Your task to perform on an android device: Open the phone app and click the voicemail tab. Image 0: 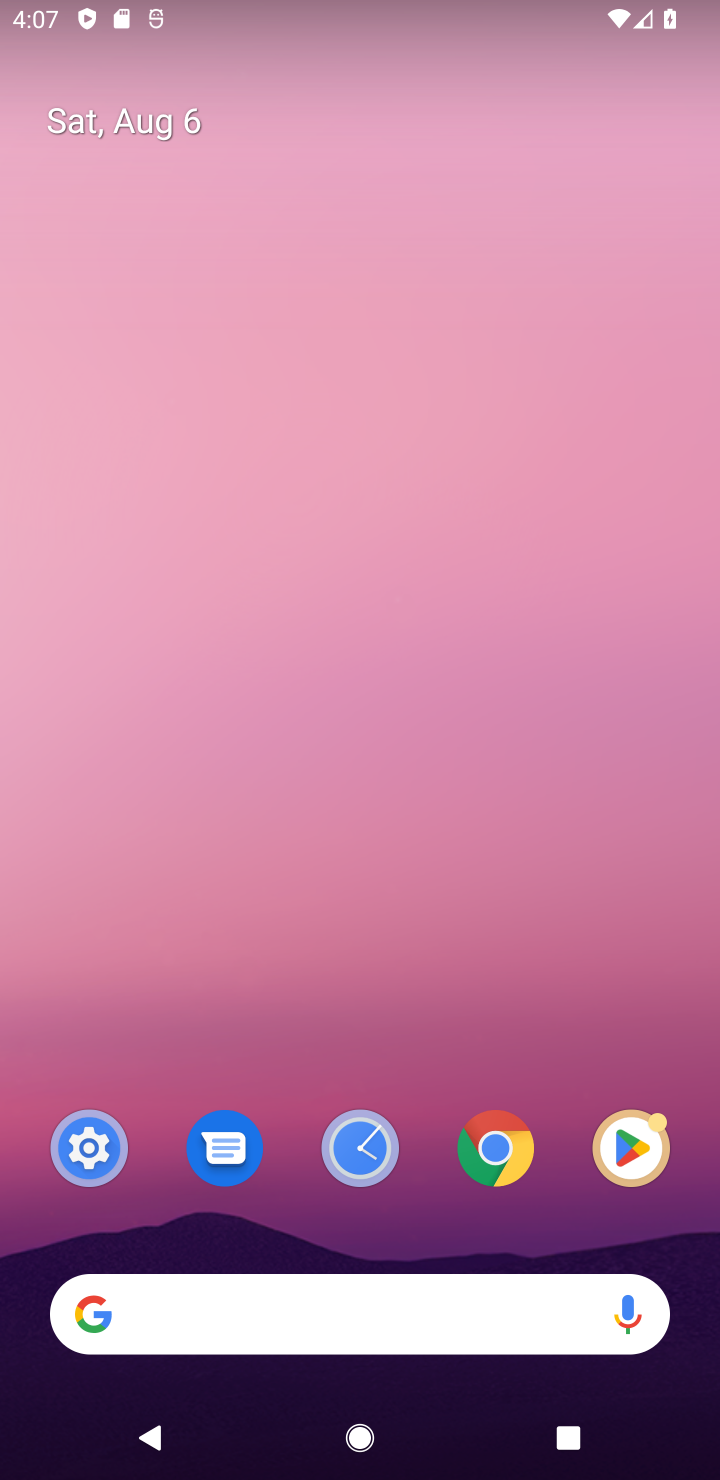
Step 0: drag from (309, 1067) to (392, 466)
Your task to perform on an android device: Open the phone app and click the voicemail tab. Image 1: 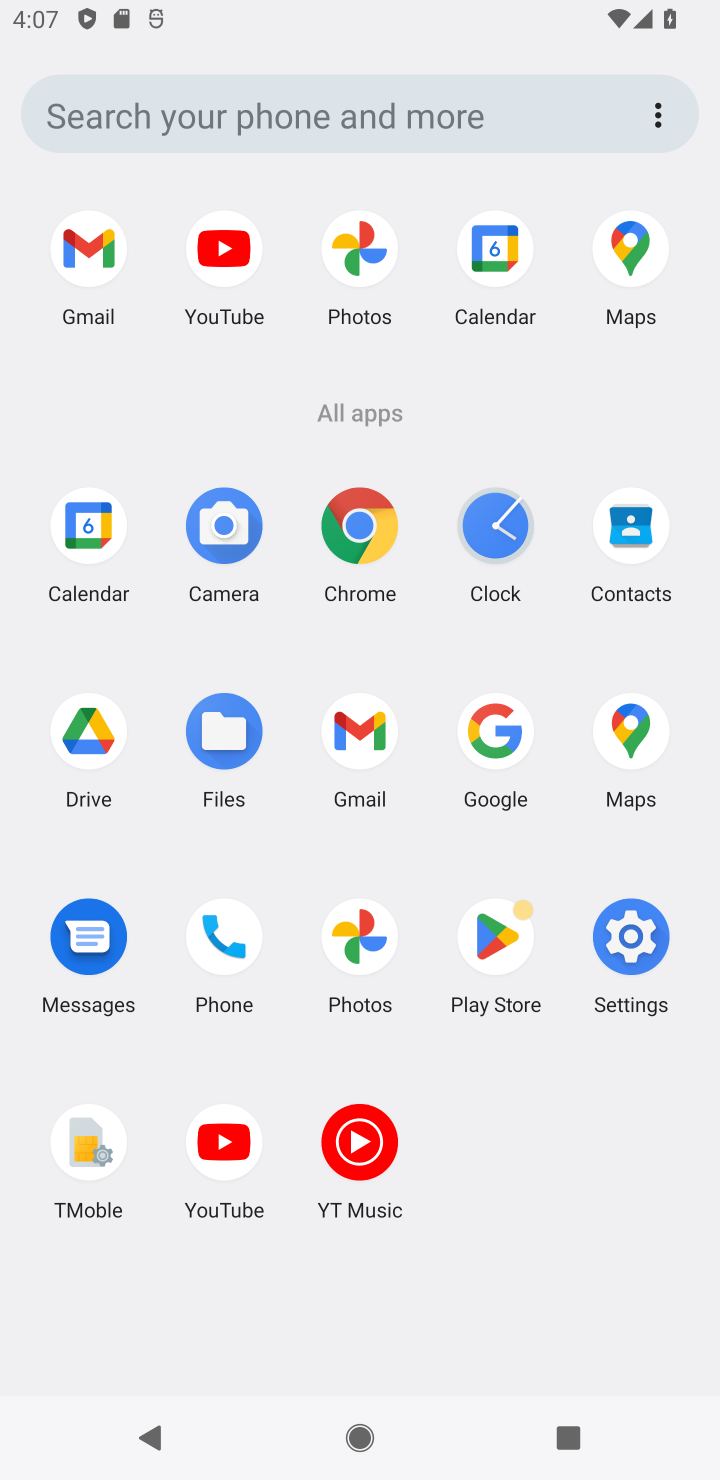
Step 1: click (228, 927)
Your task to perform on an android device: Open the phone app and click the voicemail tab. Image 2: 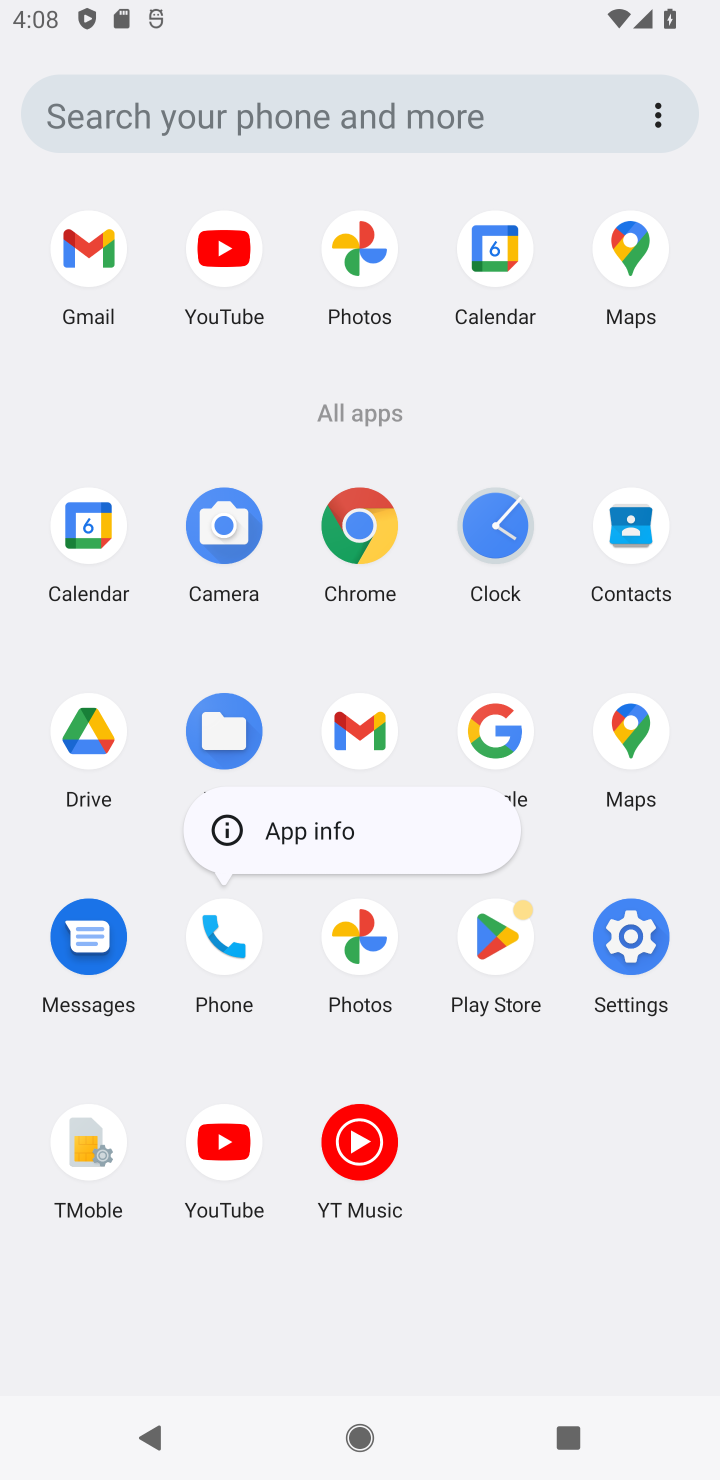
Step 2: click (304, 831)
Your task to perform on an android device: Open the phone app and click the voicemail tab. Image 3: 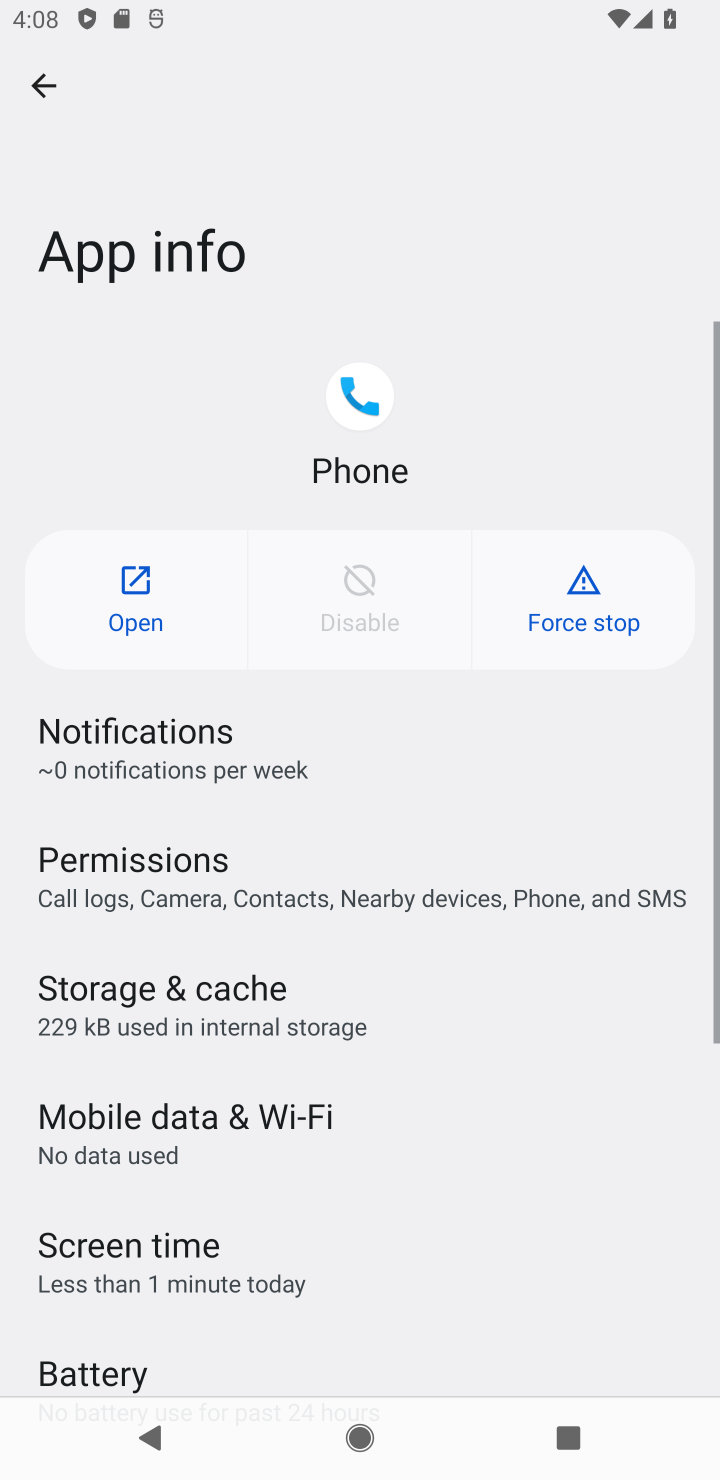
Step 3: click (125, 599)
Your task to perform on an android device: Open the phone app and click the voicemail tab. Image 4: 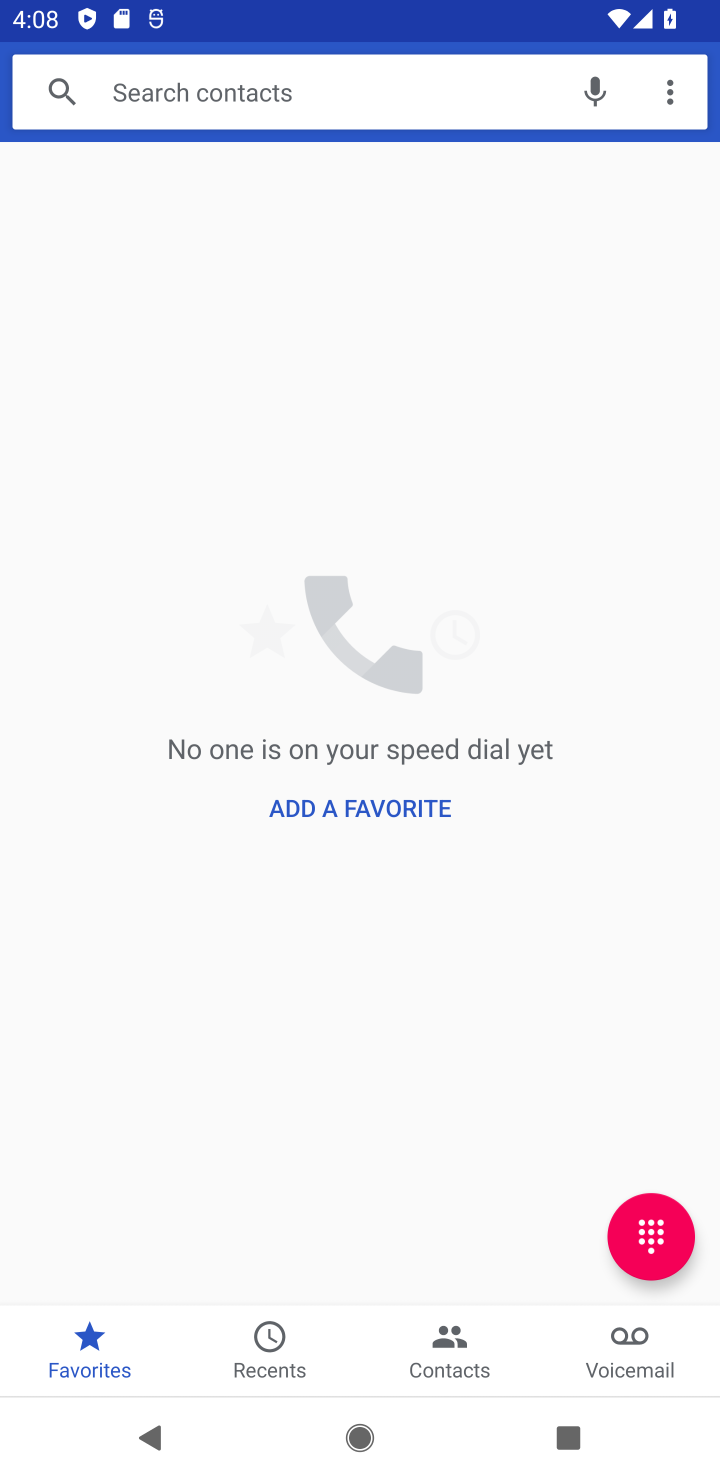
Step 4: drag from (410, 1019) to (399, 670)
Your task to perform on an android device: Open the phone app and click the voicemail tab. Image 5: 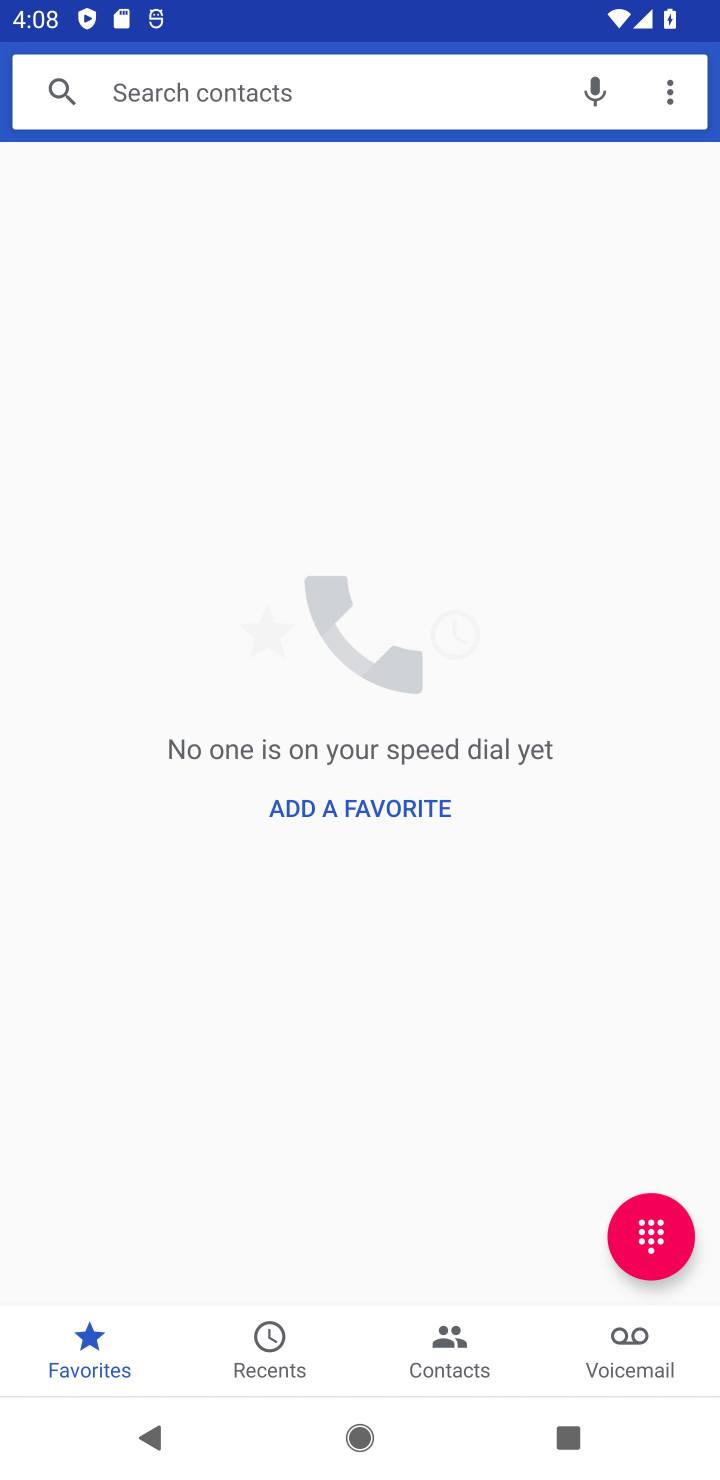
Step 5: click (646, 1343)
Your task to perform on an android device: Open the phone app and click the voicemail tab. Image 6: 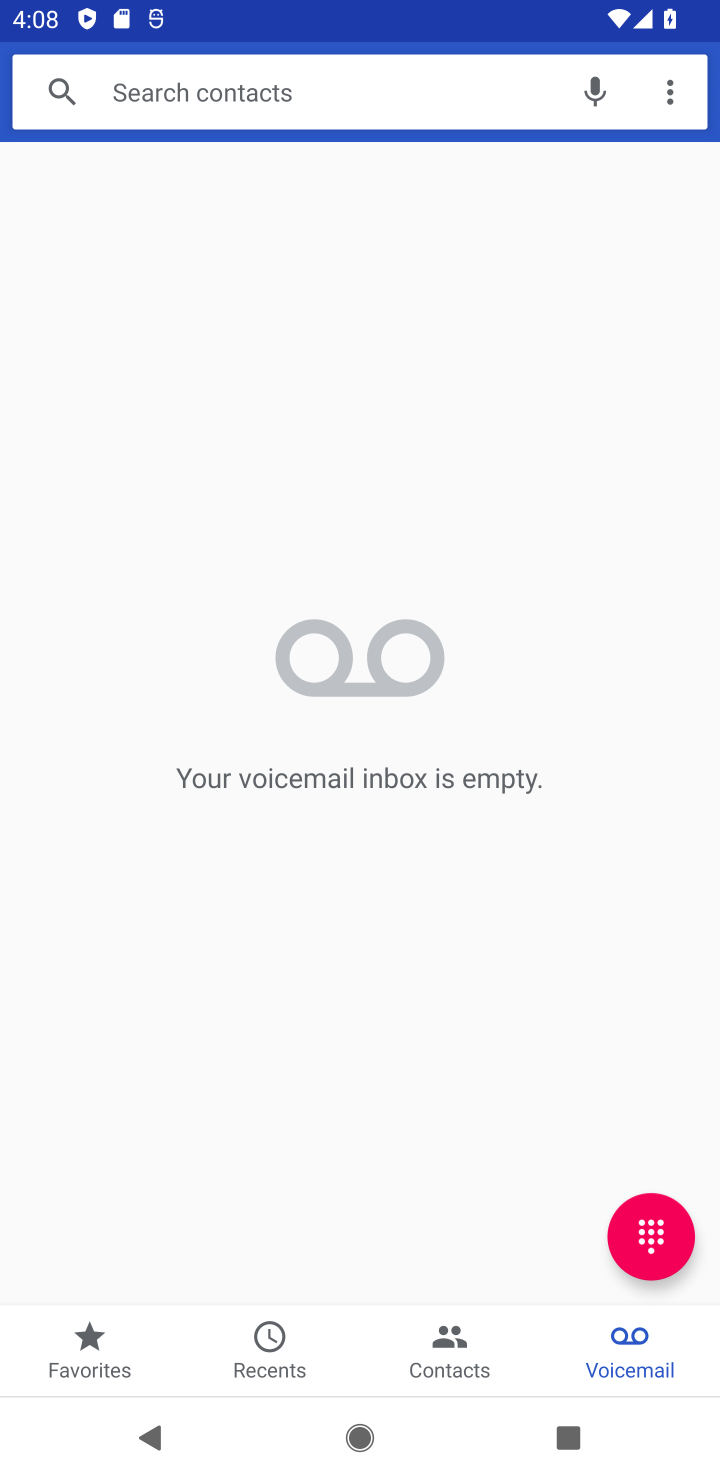
Step 6: drag from (363, 1039) to (360, 595)
Your task to perform on an android device: Open the phone app and click the voicemail tab. Image 7: 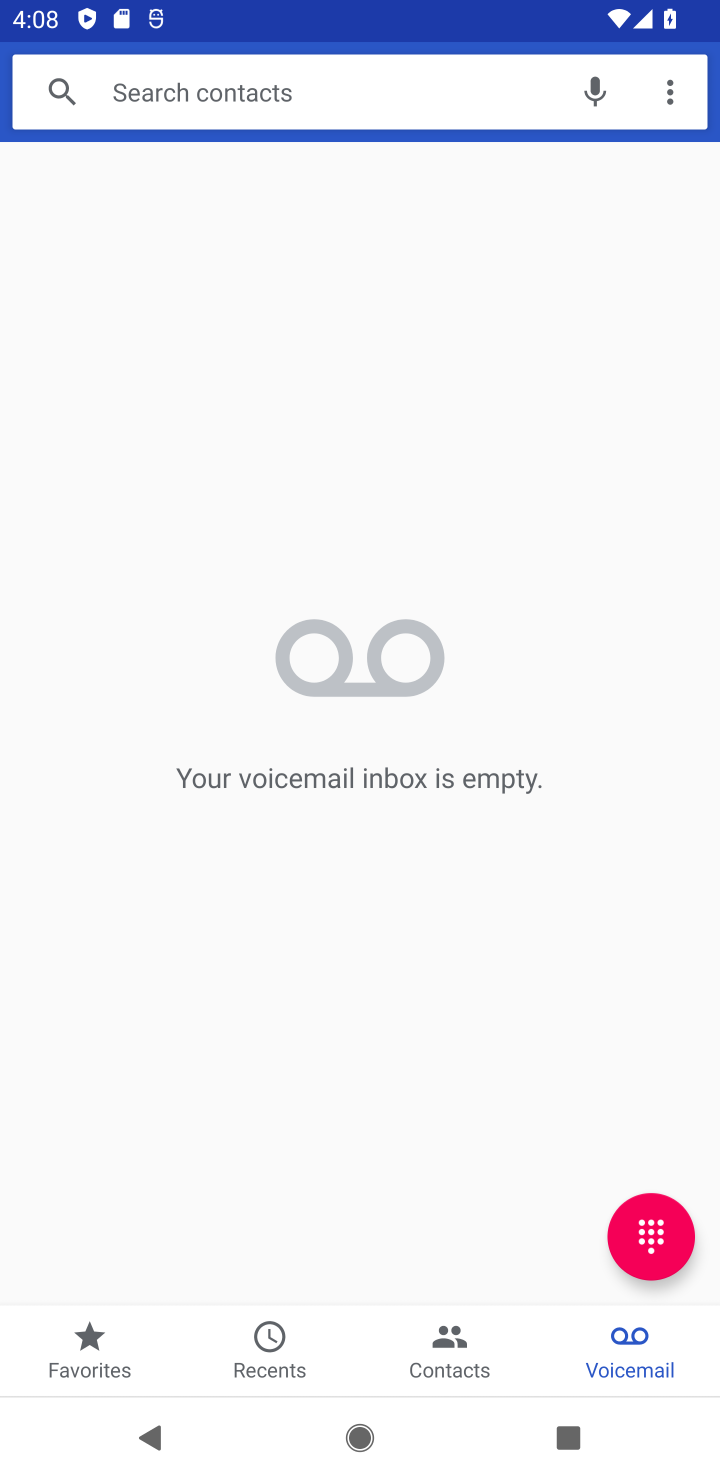
Step 7: drag from (394, 823) to (464, 1111)
Your task to perform on an android device: Open the phone app and click the voicemail tab. Image 8: 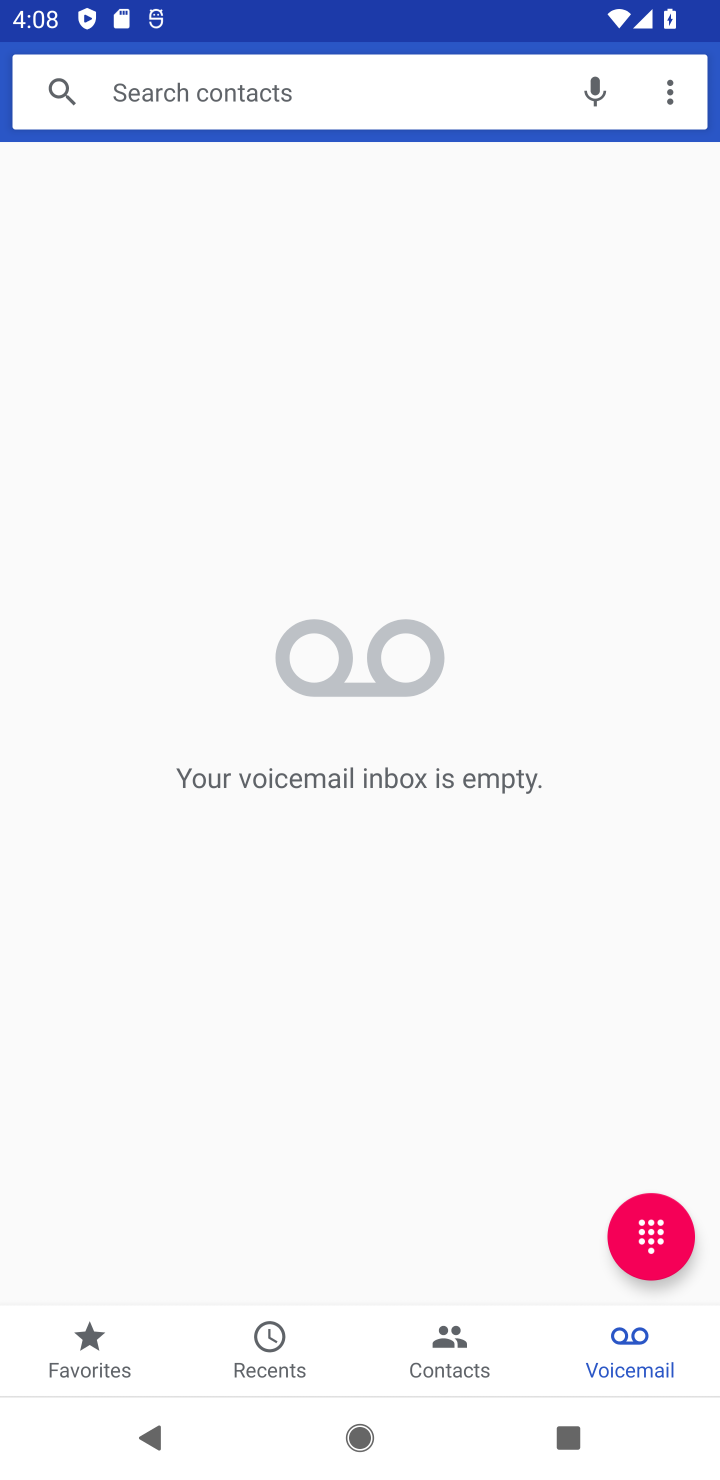
Step 8: drag from (417, 1004) to (363, 628)
Your task to perform on an android device: Open the phone app and click the voicemail tab. Image 9: 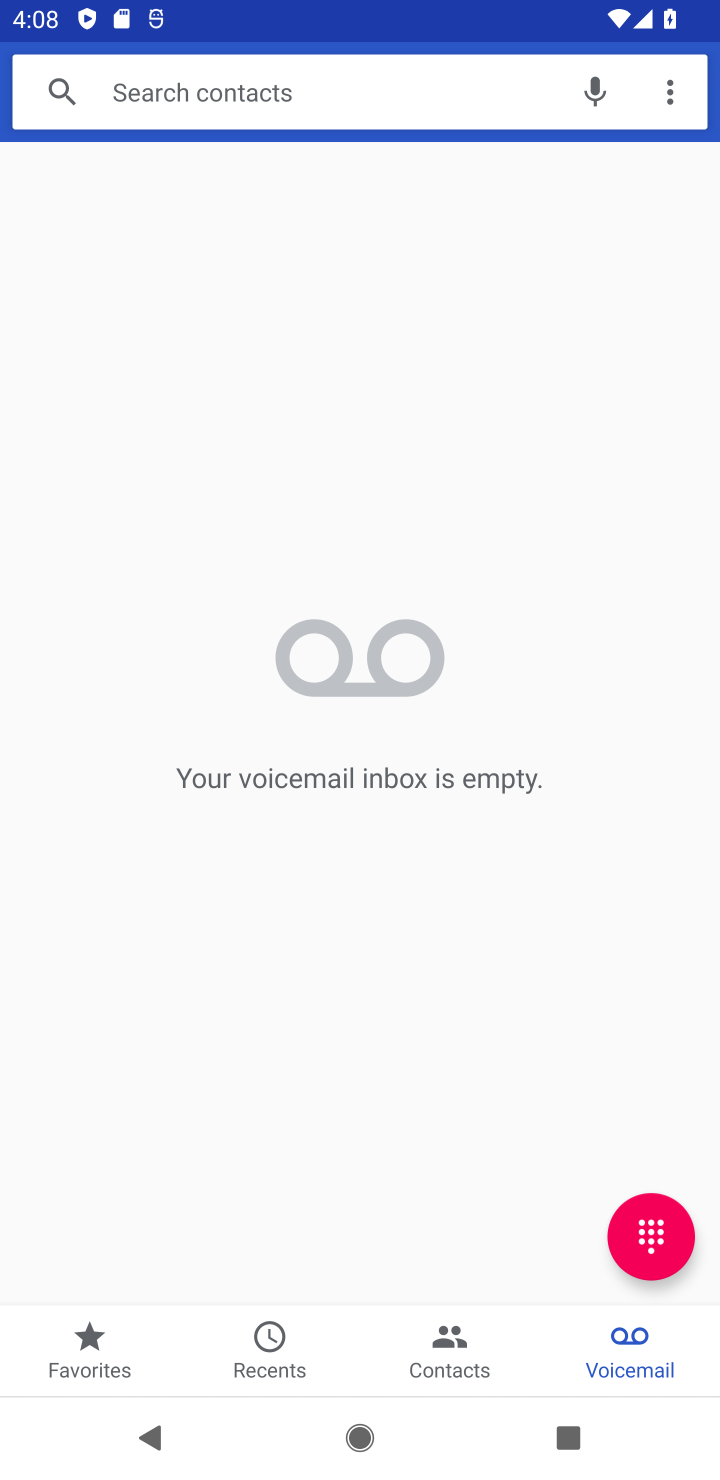
Step 9: click (625, 1336)
Your task to perform on an android device: Open the phone app and click the voicemail tab. Image 10: 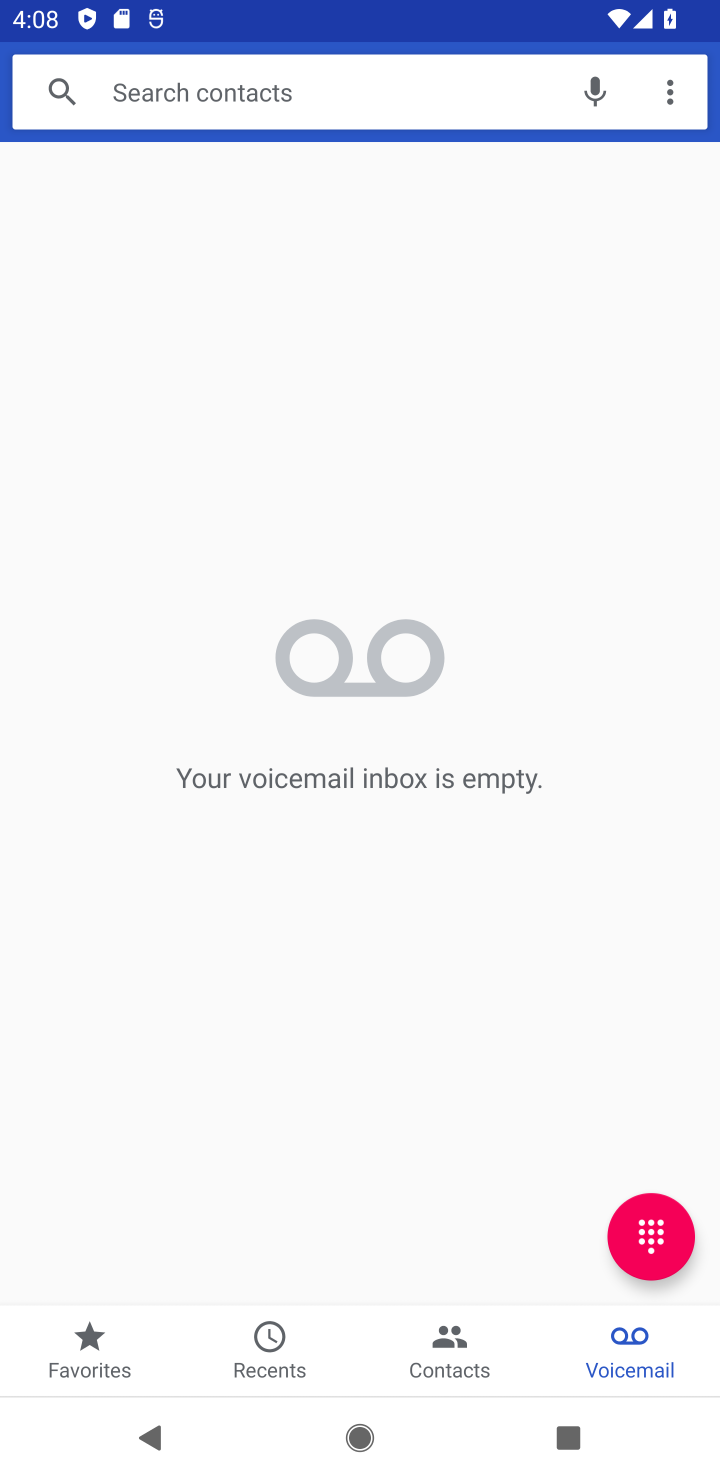
Step 10: click (625, 1336)
Your task to perform on an android device: Open the phone app and click the voicemail tab. Image 11: 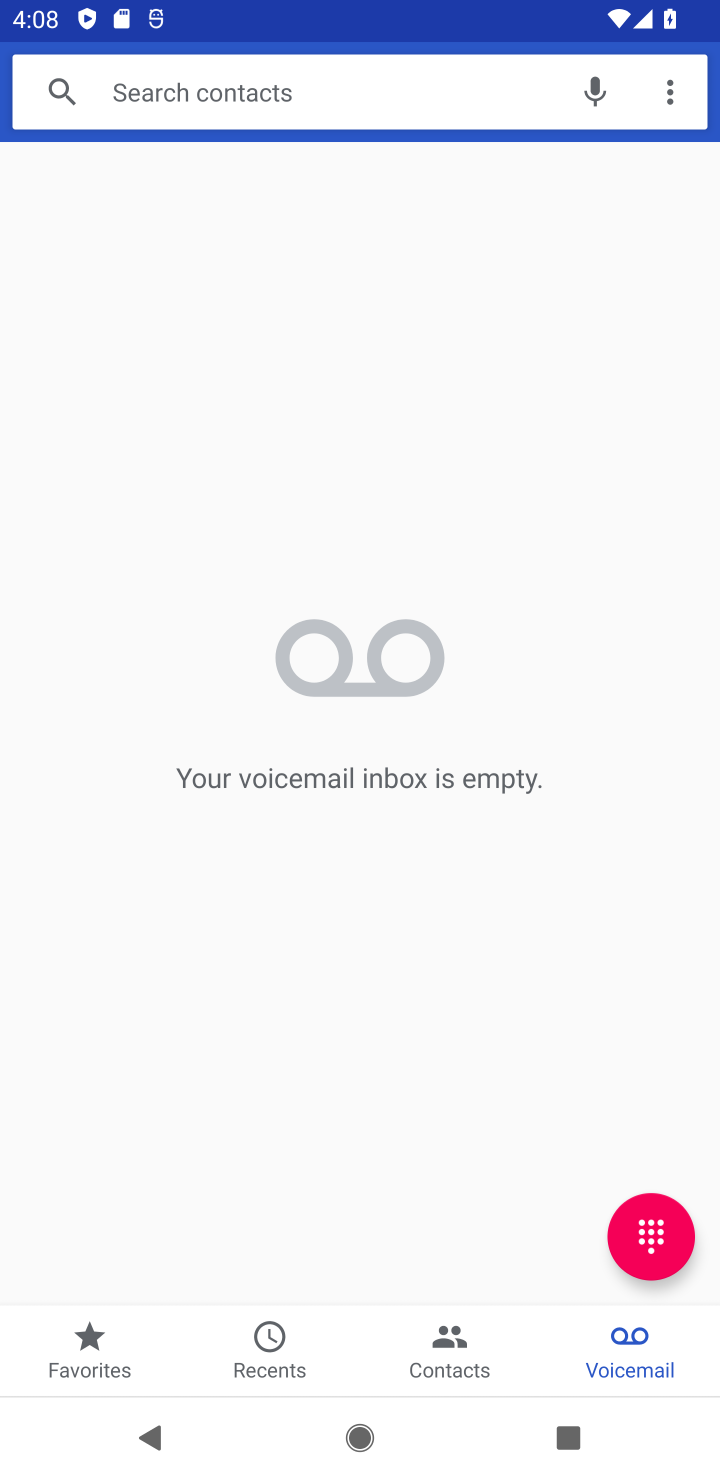
Step 11: drag from (260, 1041) to (260, 691)
Your task to perform on an android device: Open the phone app and click the voicemail tab. Image 12: 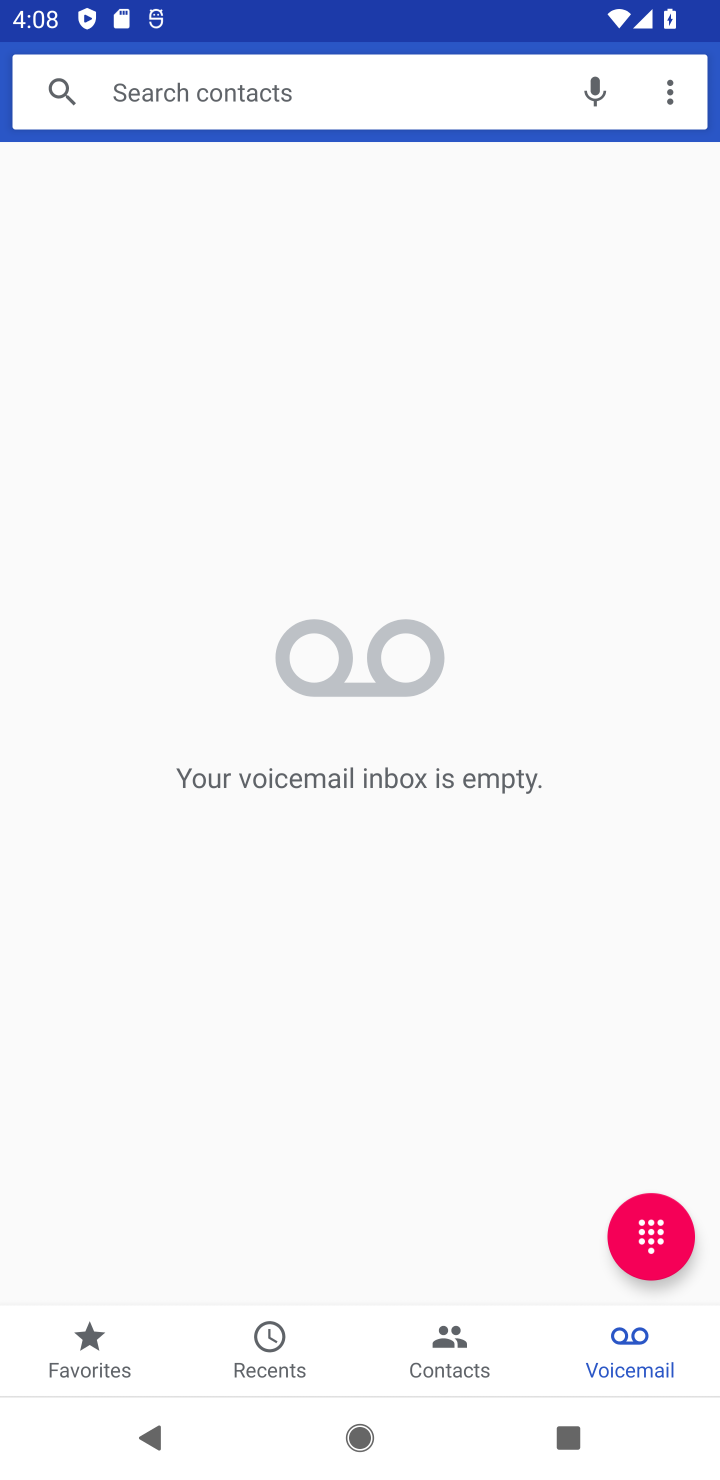
Step 12: drag from (405, 667) to (382, 532)
Your task to perform on an android device: Open the phone app and click the voicemail tab. Image 13: 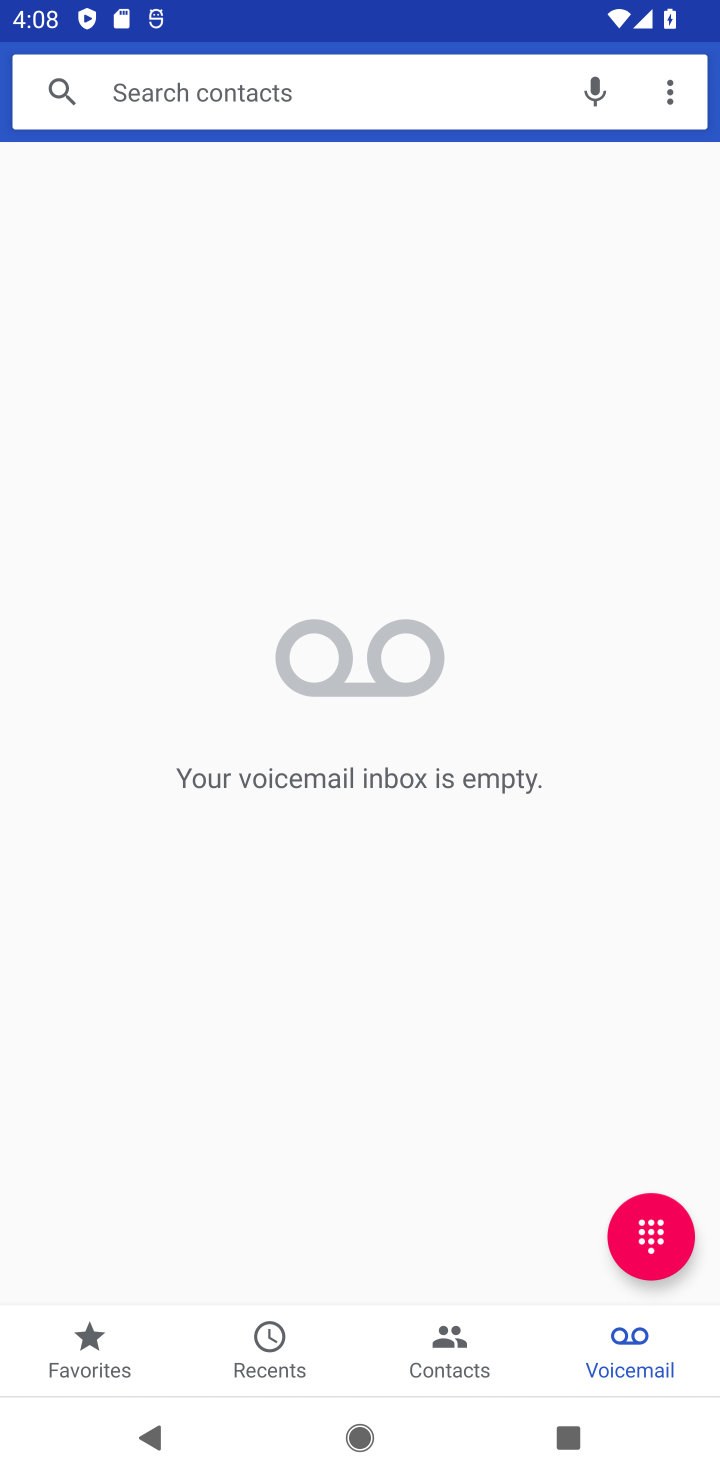
Step 13: drag from (453, 1217) to (445, 558)
Your task to perform on an android device: Open the phone app and click the voicemail tab. Image 14: 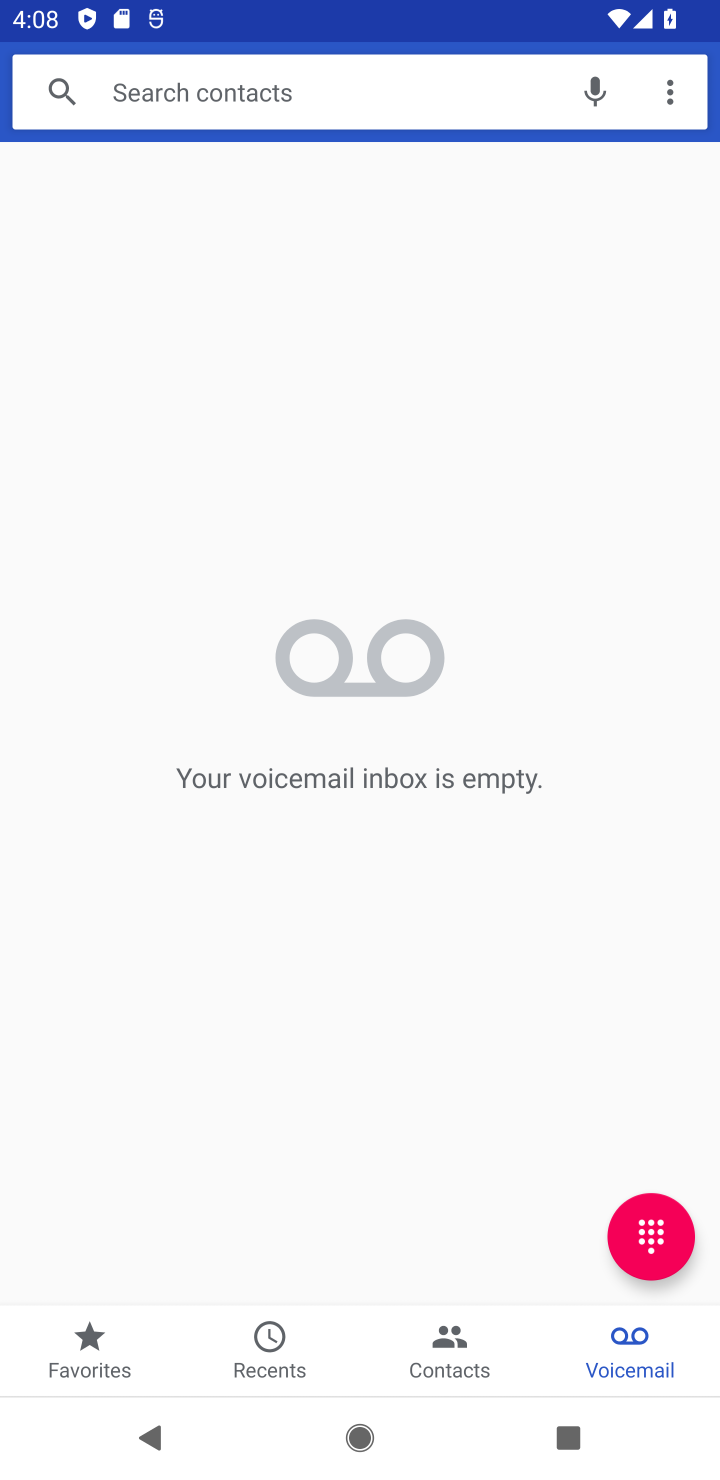
Step 14: drag from (378, 1131) to (406, 587)
Your task to perform on an android device: Open the phone app and click the voicemail tab. Image 15: 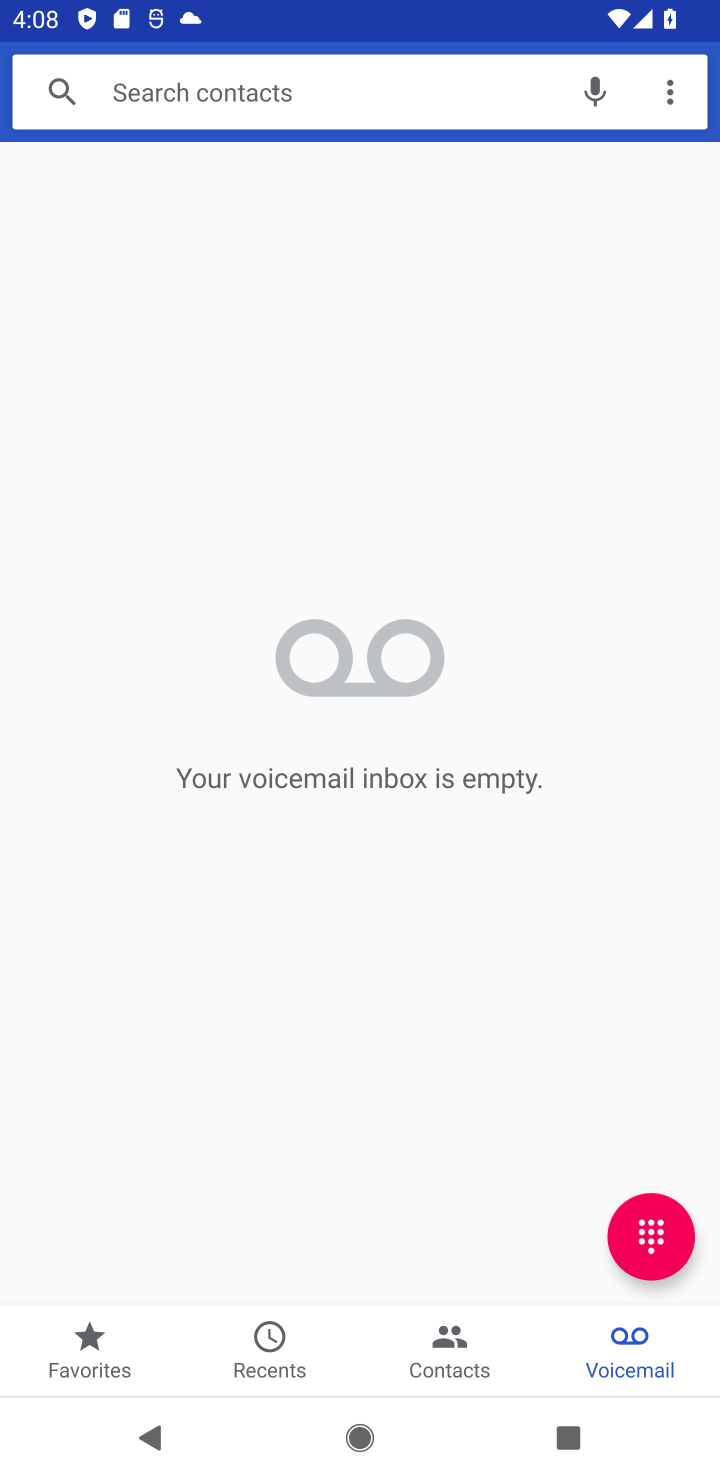
Step 15: click (612, 1338)
Your task to perform on an android device: Open the phone app and click the voicemail tab. Image 16: 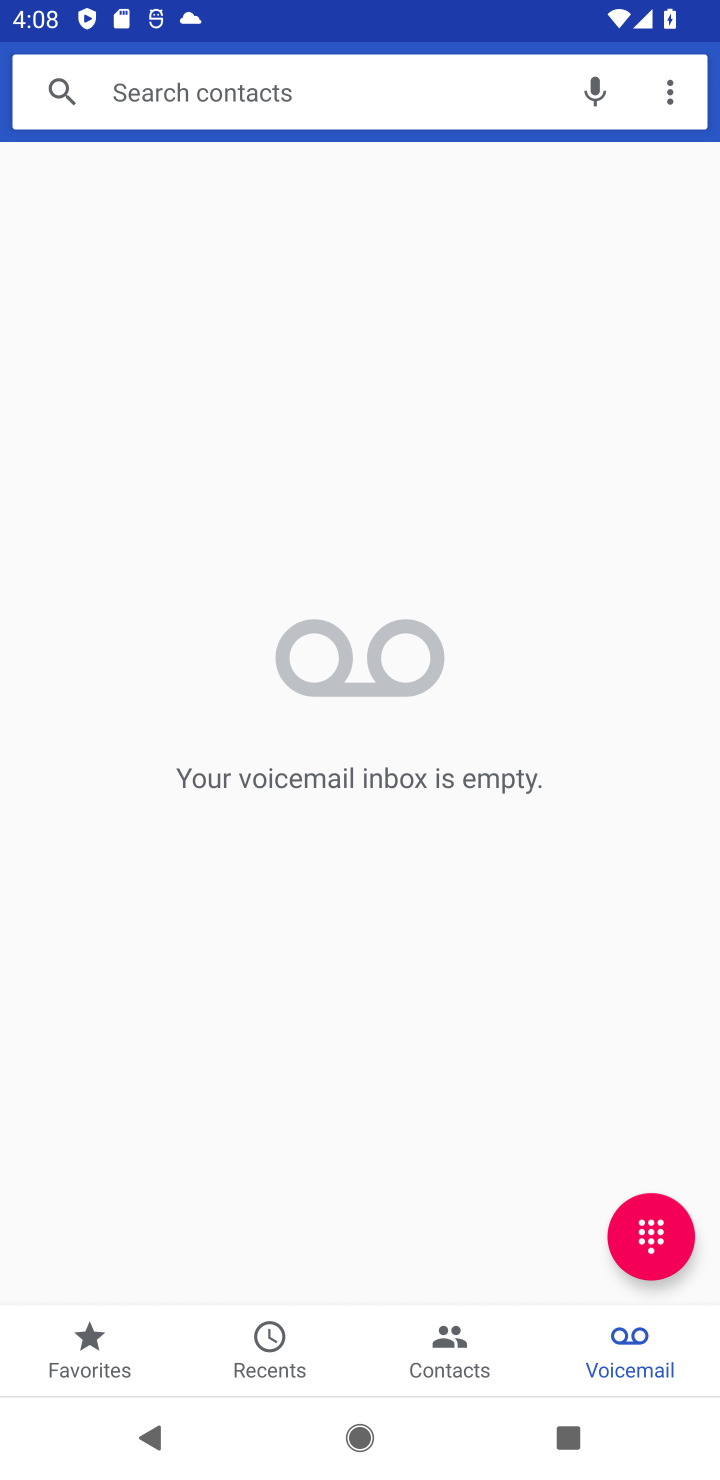
Step 16: task complete